Your task to perform on an android device: Check the news Image 0: 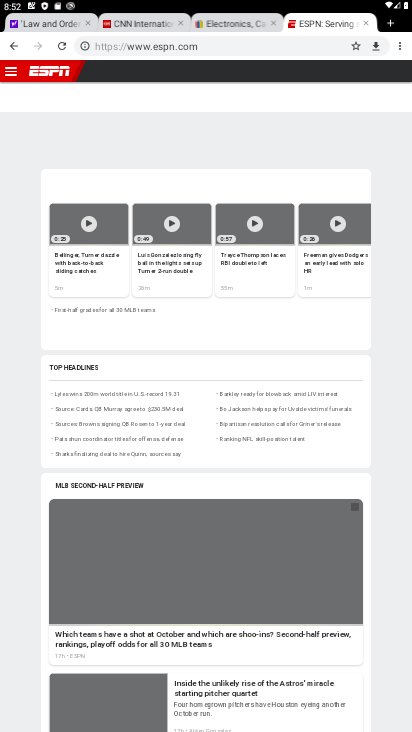
Step 0: press home button
Your task to perform on an android device: Check the news Image 1: 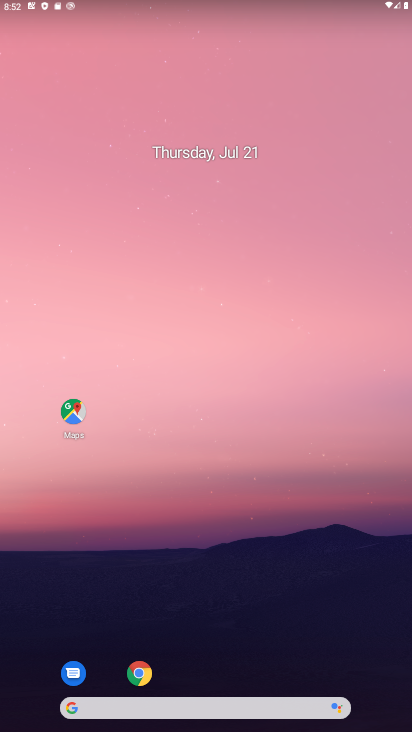
Step 1: task complete